Your task to perform on an android device: allow notifications from all sites in the chrome app Image 0: 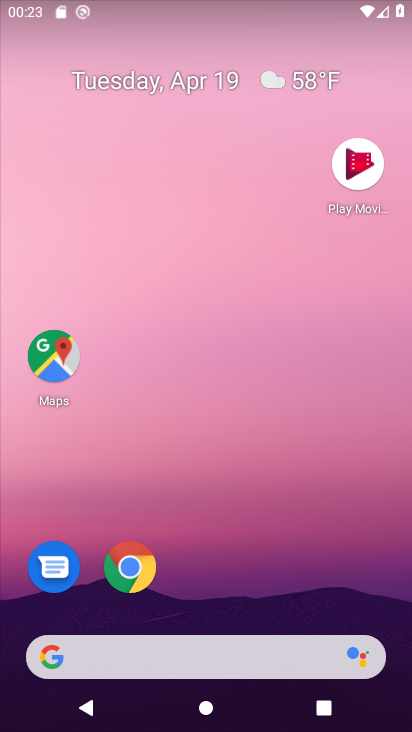
Step 0: drag from (227, 455) to (257, 238)
Your task to perform on an android device: allow notifications from all sites in the chrome app Image 1: 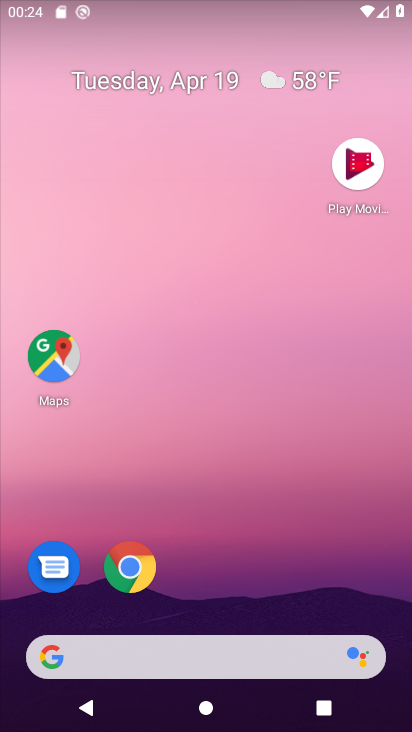
Step 1: drag from (221, 610) to (247, 148)
Your task to perform on an android device: allow notifications from all sites in the chrome app Image 2: 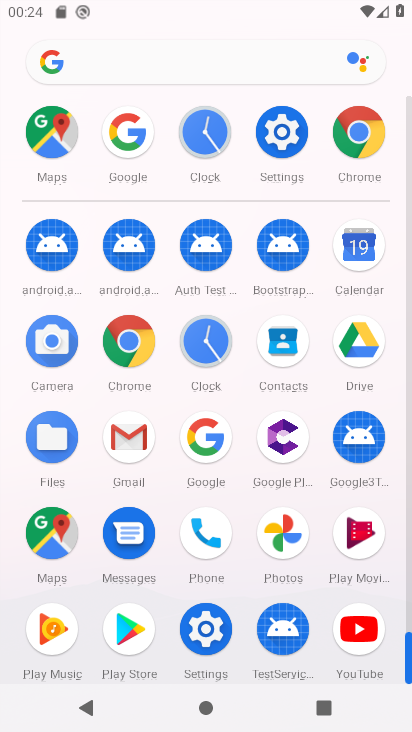
Step 2: click (132, 334)
Your task to perform on an android device: allow notifications from all sites in the chrome app Image 3: 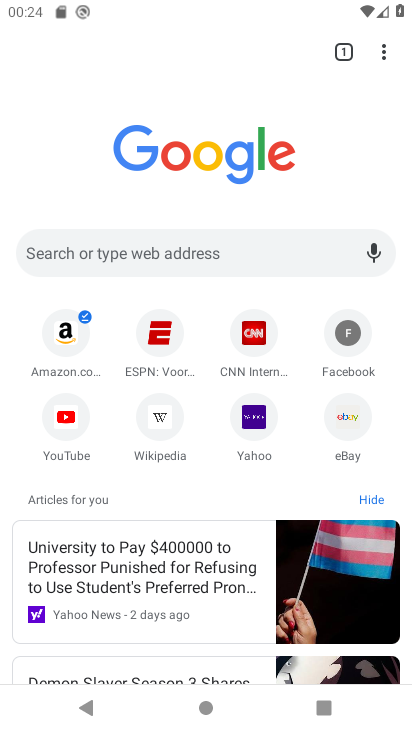
Step 3: drag from (214, 497) to (246, 58)
Your task to perform on an android device: allow notifications from all sites in the chrome app Image 4: 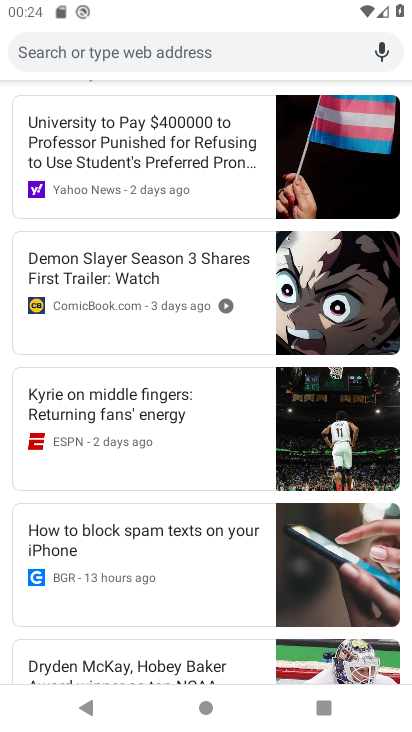
Step 4: drag from (178, 604) to (228, 171)
Your task to perform on an android device: allow notifications from all sites in the chrome app Image 5: 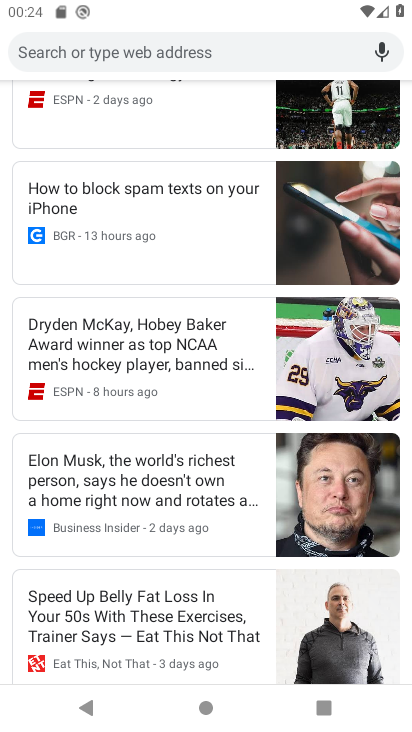
Step 5: drag from (236, 658) to (244, 250)
Your task to perform on an android device: allow notifications from all sites in the chrome app Image 6: 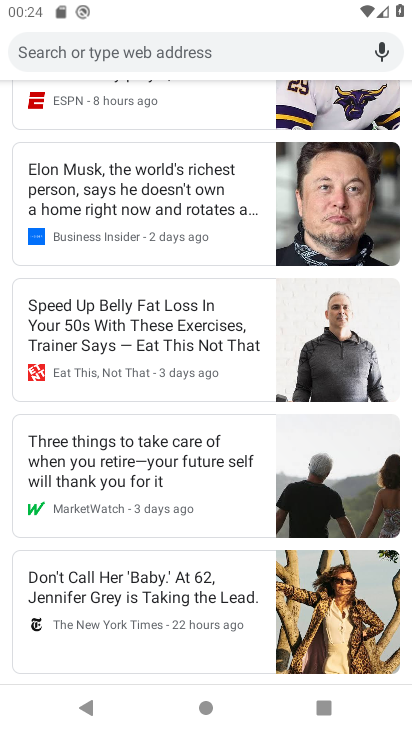
Step 6: drag from (210, 142) to (285, 666)
Your task to perform on an android device: allow notifications from all sites in the chrome app Image 7: 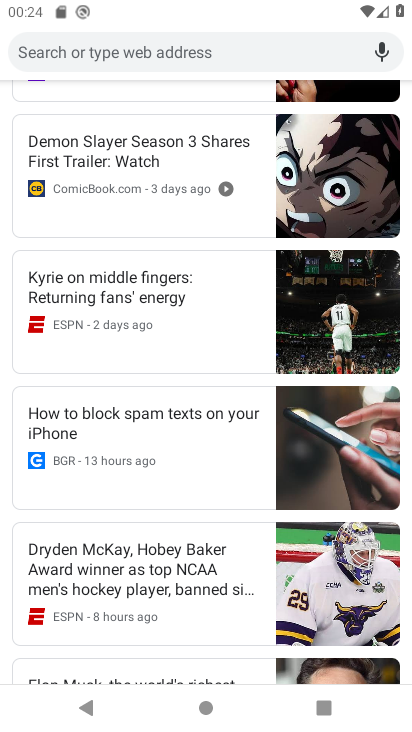
Step 7: drag from (224, 159) to (245, 697)
Your task to perform on an android device: allow notifications from all sites in the chrome app Image 8: 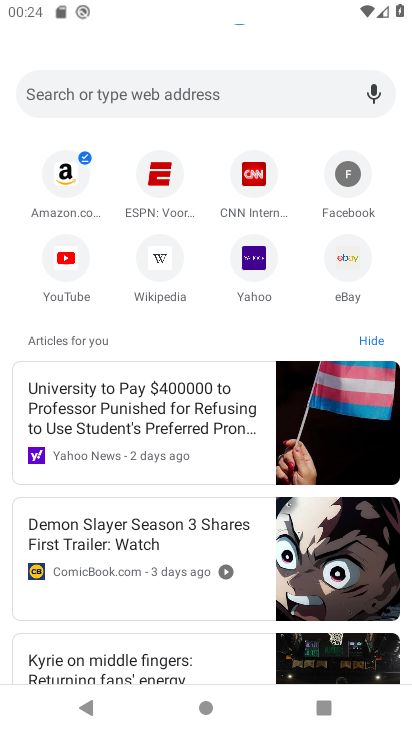
Step 8: drag from (283, 195) to (280, 457)
Your task to perform on an android device: allow notifications from all sites in the chrome app Image 9: 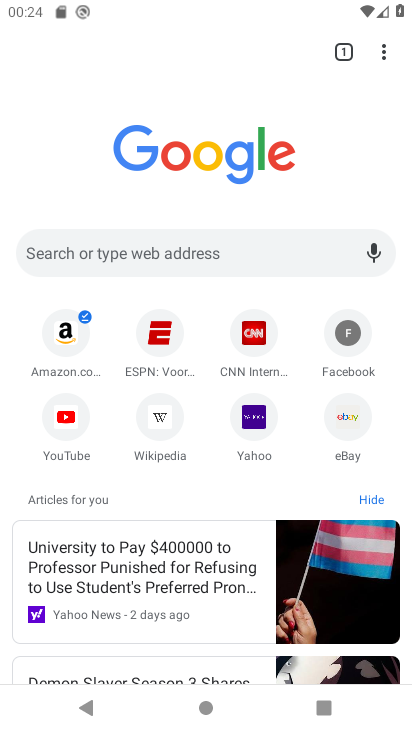
Step 9: click (388, 49)
Your task to perform on an android device: allow notifications from all sites in the chrome app Image 10: 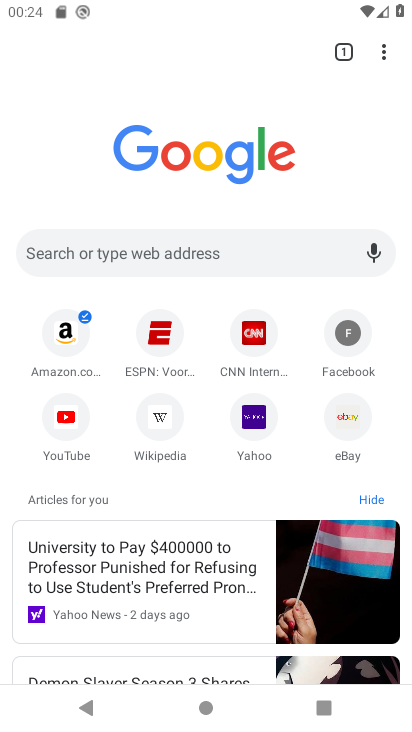
Step 10: drag from (384, 45) to (284, 497)
Your task to perform on an android device: allow notifications from all sites in the chrome app Image 11: 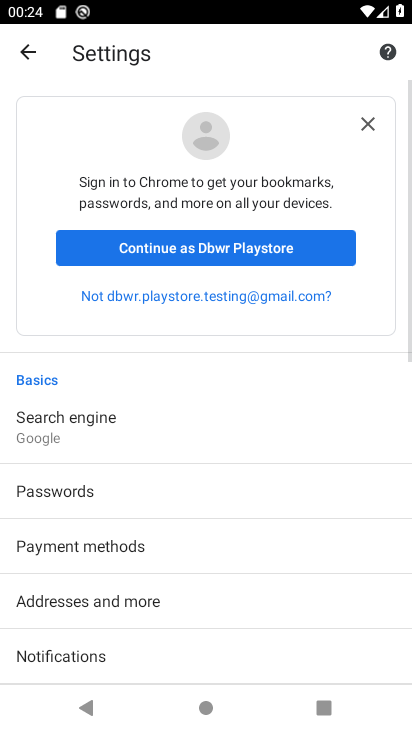
Step 11: drag from (213, 571) to (295, 119)
Your task to perform on an android device: allow notifications from all sites in the chrome app Image 12: 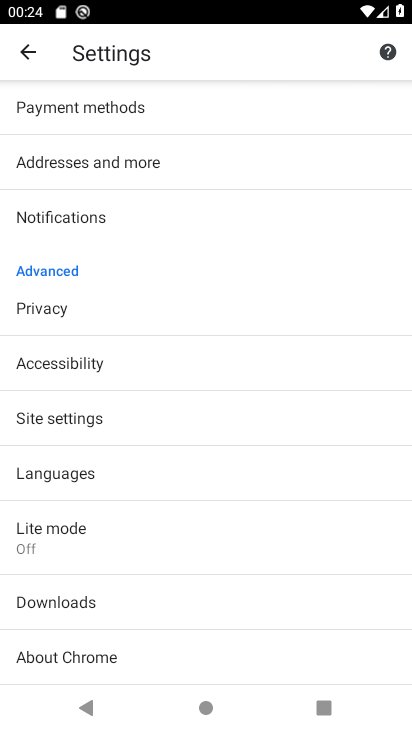
Step 12: drag from (187, 570) to (257, 167)
Your task to perform on an android device: allow notifications from all sites in the chrome app Image 13: 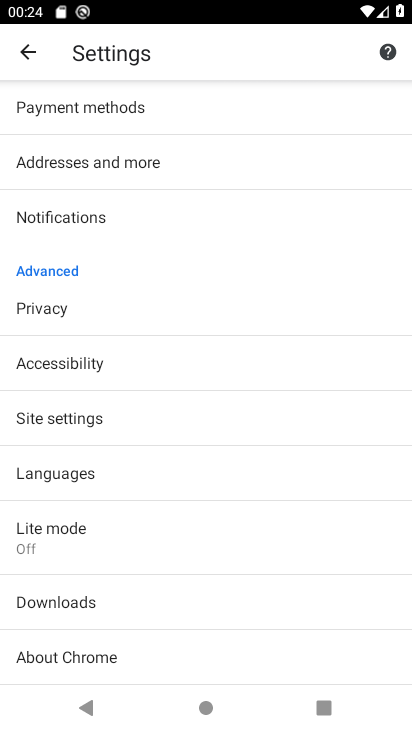
Step 13: drag from (169, 586) to (268, 288)
Your task to perform on an android device: allow notifications from all sites in the chrome app Image 14: 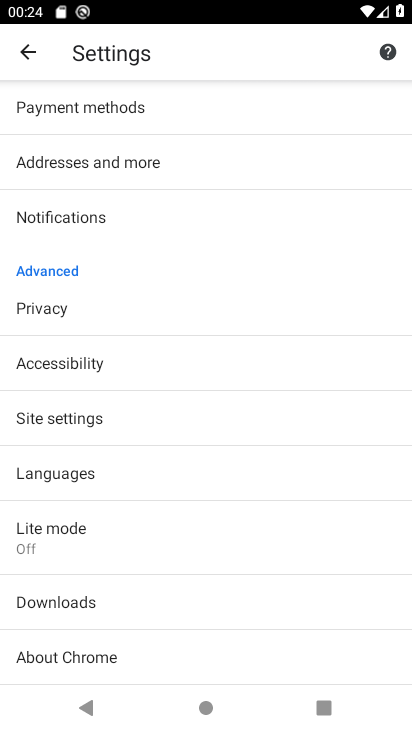
Step 14: click (101, 422)
Your task to perform on an android device: allow notifications from all sites in the chrome app Image 15: 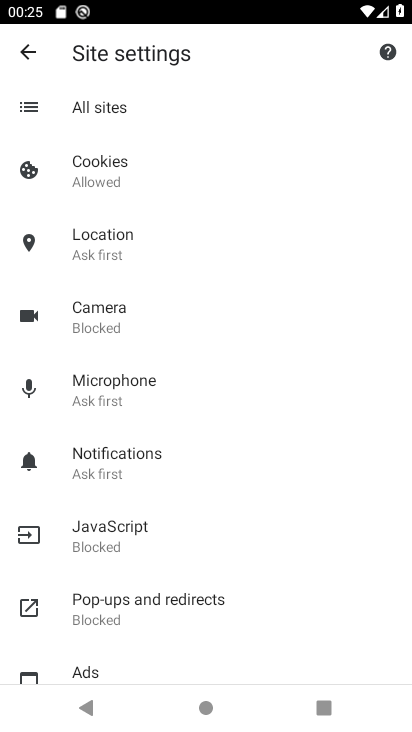
Step 15: click (151, 460)
Your task to perform on an android device: allow notifications from all sites in the chrome app Image 16: 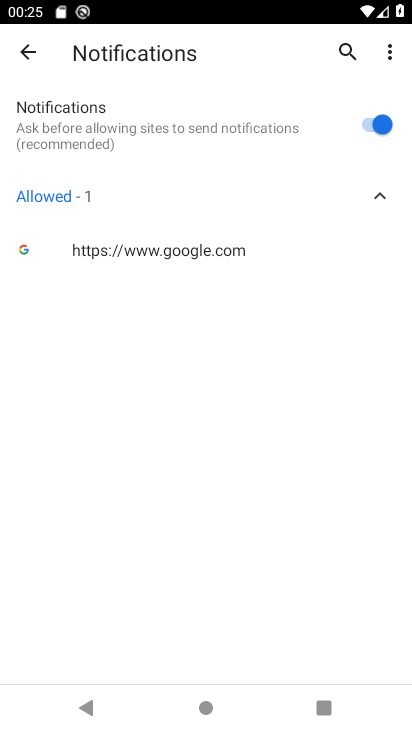
Step 16: task complete